Your task to perform on an android device: check storage Image 0: 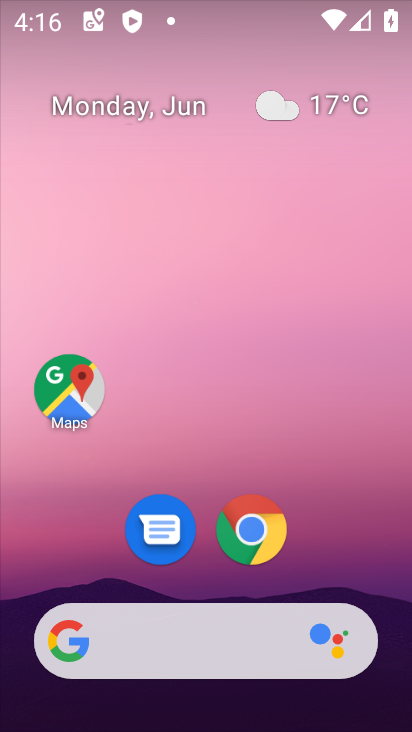
Step 0: drag from (336, 519) to (278, 59)
Your task to perform on an android device: check storage Image 1: 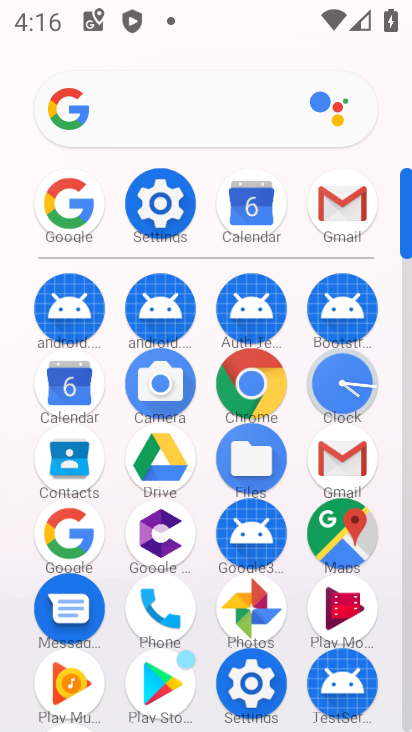
Step 1: click (161, 198)
Your task to perform on an android device: check storage Image 2: 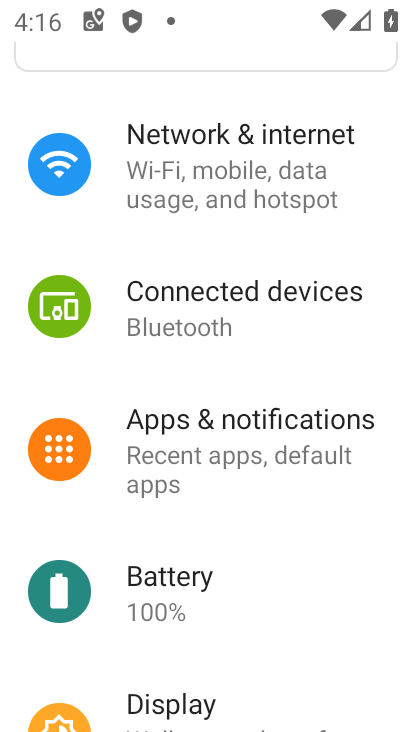
Step 2: drag from (252, 618) to (253, 228)
Your task to perform on an android device: check storage Image 3: 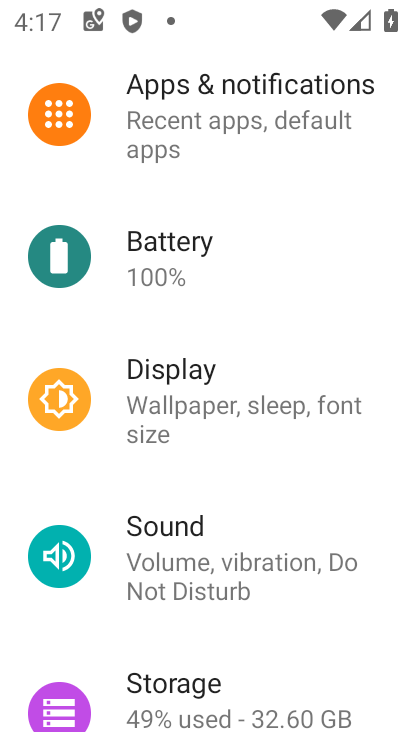
Step 3: drag from (254, 541) to (278, 395)
Your task to perform on an android device: check storage Image 4: 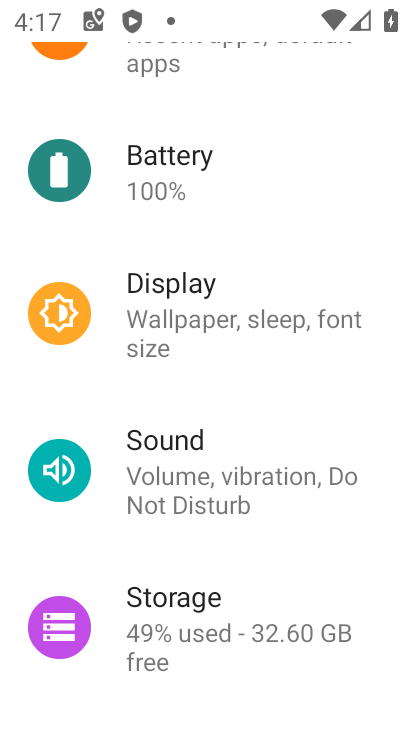
Step 4: click (194, 593)
Your task to perform on an android device: check storage Image 5: 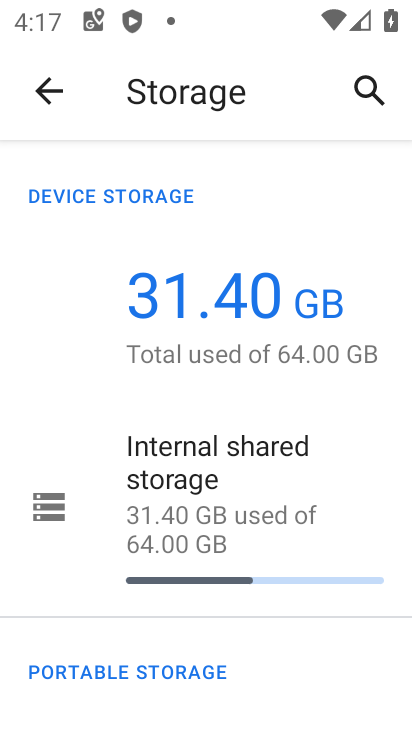
Step 5: task complete